Your task to perform on an android device: Show me recent news Image 0: 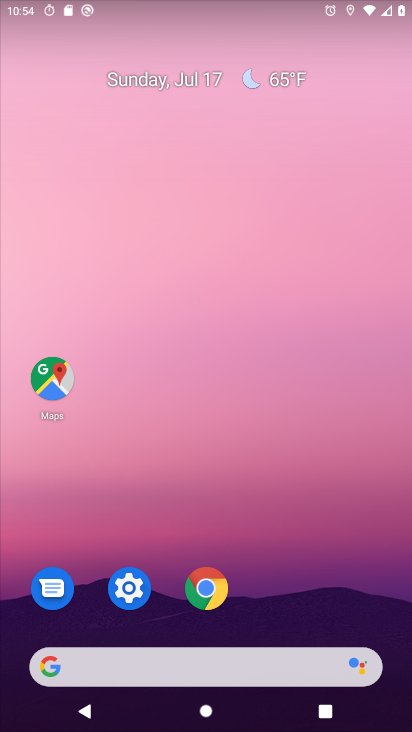
Step 0: drag from (104, 590) to (74, 11)
Your task to perform on an android device: Show me recent news Image 1: 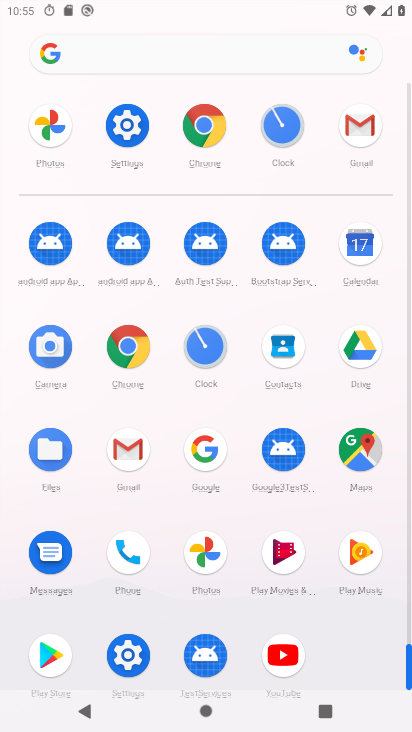
Step 1: click (210, 125)
Your task to perform on an android device: Show me recent news Image 2: 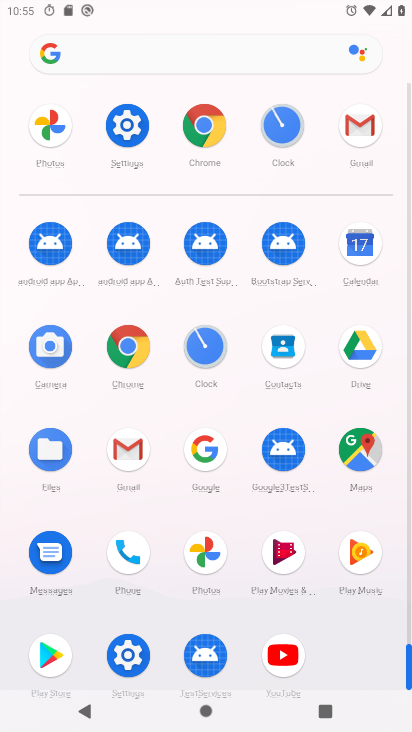
Step 2: click (210, 125)
Your task to perform on an android device: Show me recent news Image 3: 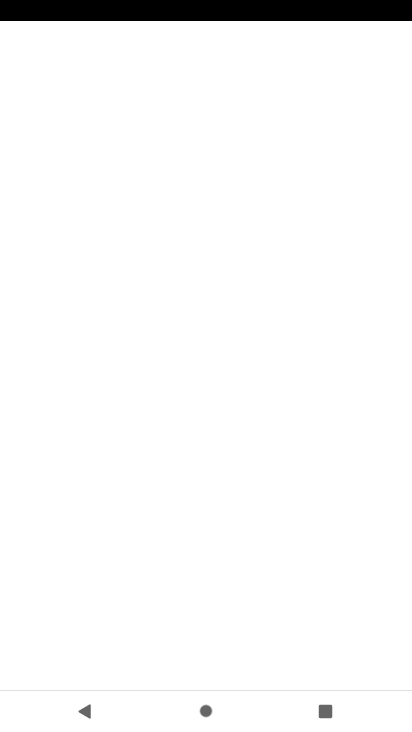
Step 3: click (208, 127)
Your task to perform on an android device: Show me recent news Image 4: 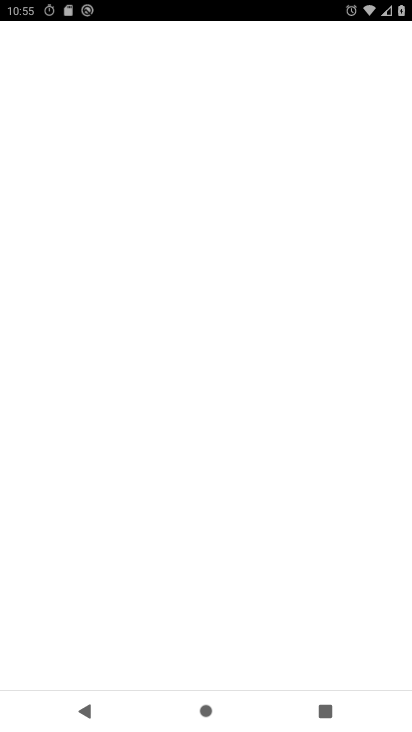
Step 4: click (207, 130)
Your task to perform on an android device: Show me recent news Image 5: 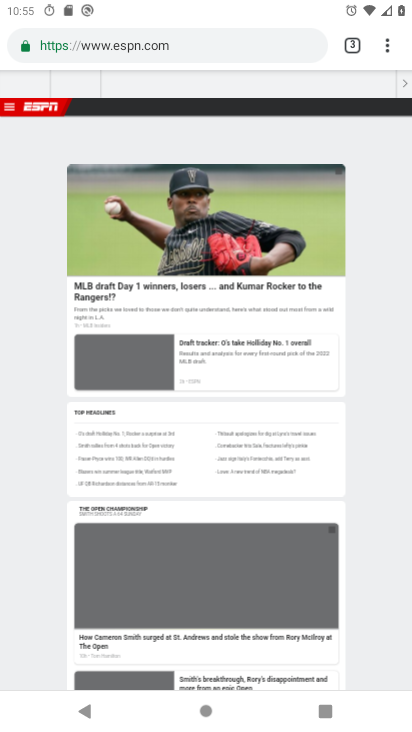
Step 5: task complete